Your task to perform on an android device: Open internet settings Image 0: 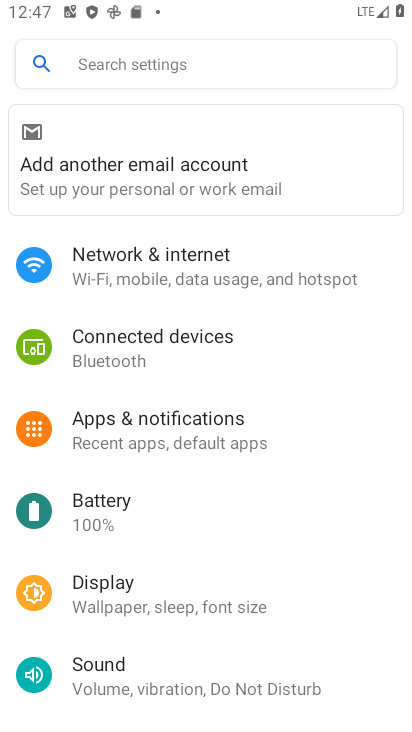
Step 0: press home button
Your task to perform on an android device: Open internet settings Image 1: 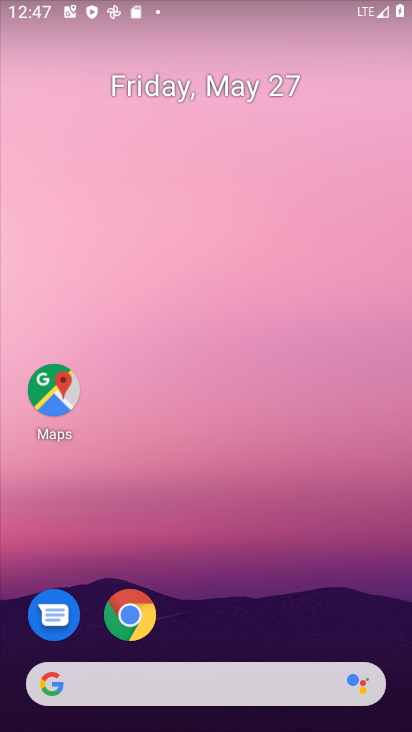
Step 1: drag from (260, 687) to (393, 100)
Your task to perform on an android device: Open internet settings Image 2: 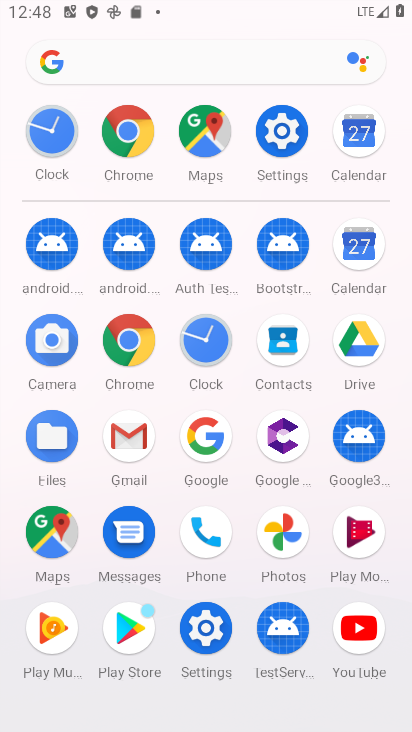
Step 2: click (292, 142)
Your task to perform on an android device: Open internet settings Image 3: 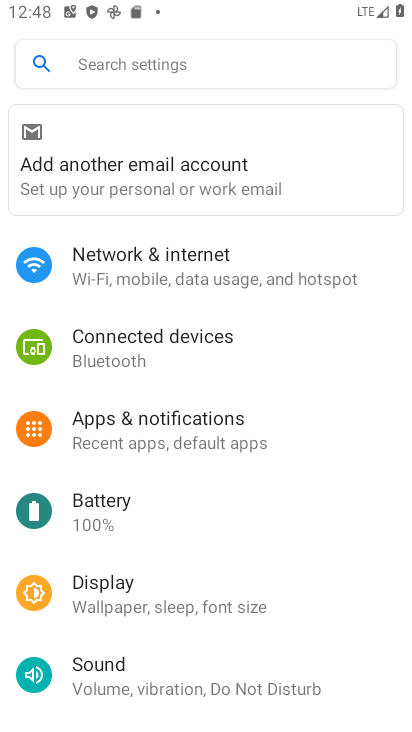
Step 3: click (262, 277)
Your task to perform on an android device: Open internet settings Image 4: 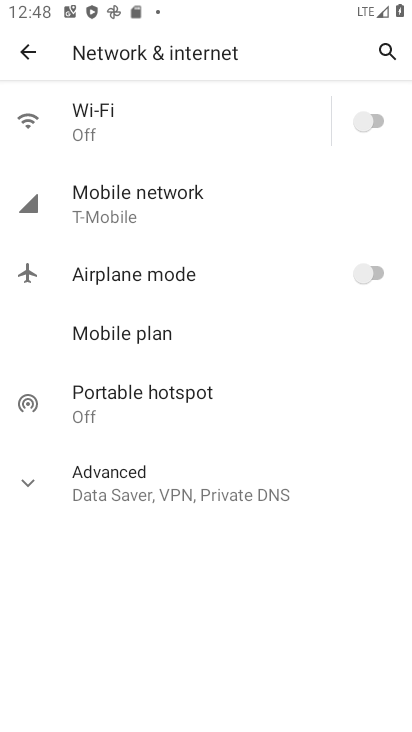
Step 4: click (175, 227)
Your task to perform on an android device: Open internet settings Image 5: 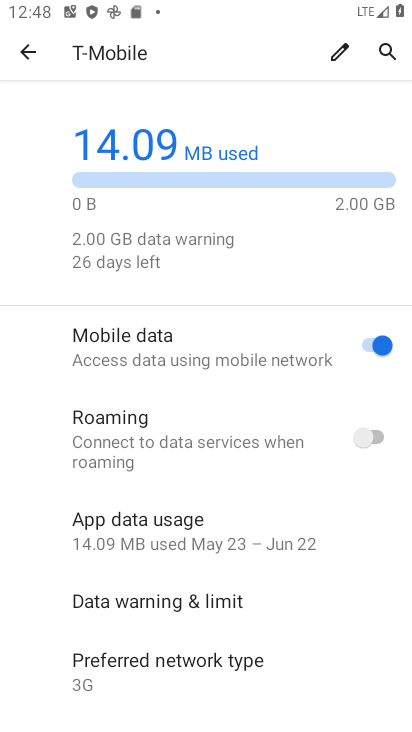
Step 5: task complete